Your task to perform on an android device: turn off translation in the chrome app Image 0: 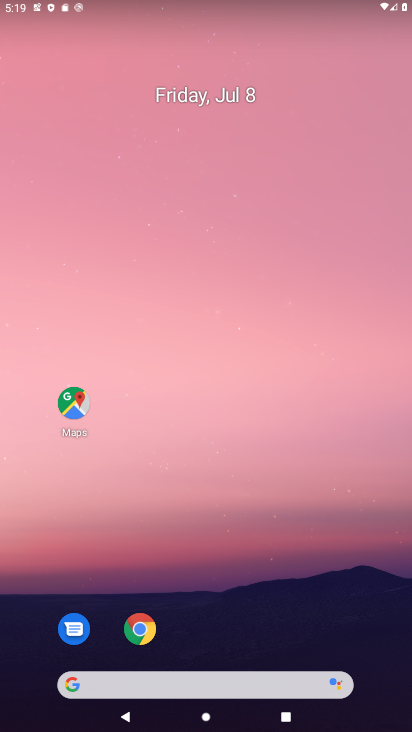
Step 0: click (268, 239)
Your task to perform on an android device: turn off translation in the chrome app Image 1: 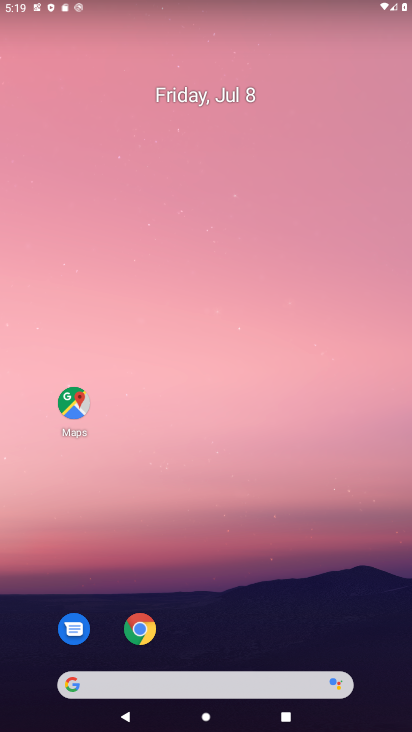
Step 1: drag from (270, 614) to (232, 0)
Your task to perform on an android device: turn off translation in the chrome app Image 2: 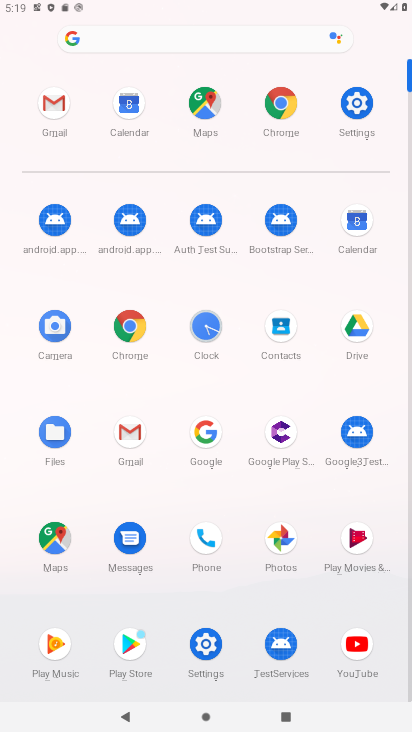
Step 2: click (278, 89)
Your task to perform on an android device: turn off translation in the chrome app Image 3: 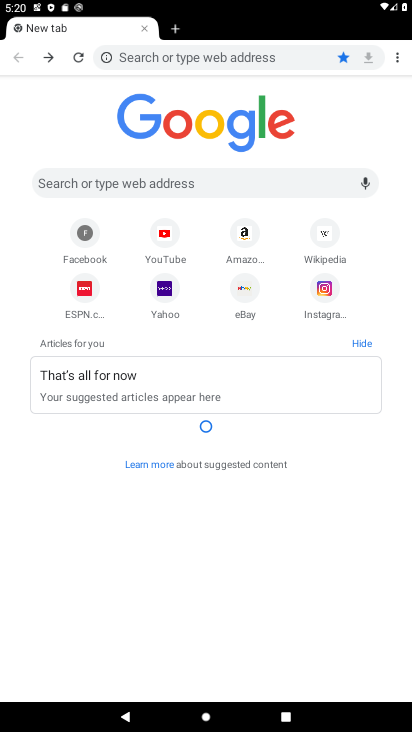
Step 3: drag from (403, 58) to (271, 260)
Your task to perform on an android device: turn off translation in the chrome app Image 4: 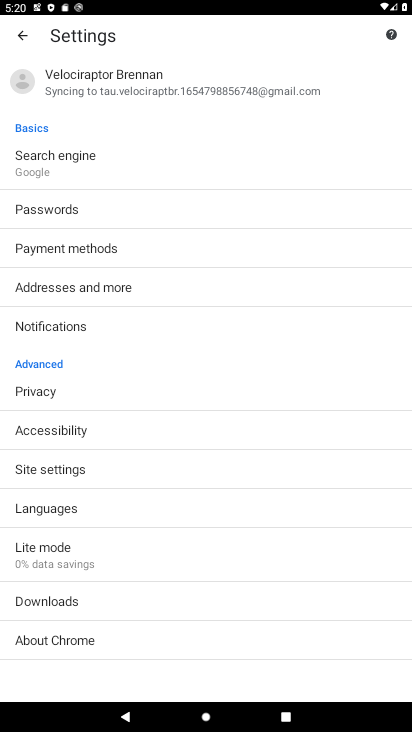
Step 4: click (56, 508)
Your task to perform on an android device: turn off translation in the chrome app Image 5: 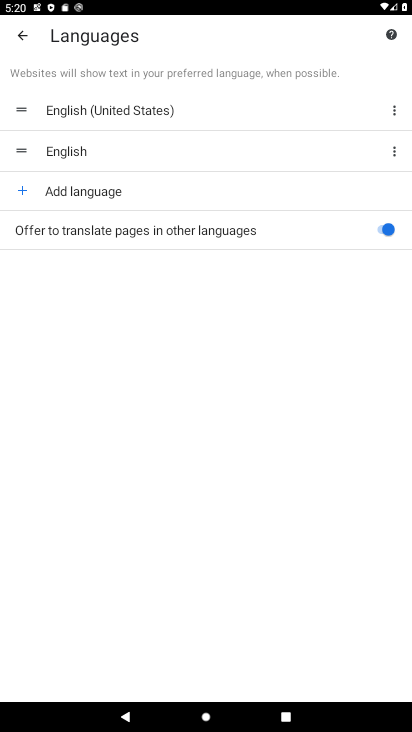
Step 5: click (381, 221)
Your task to perform on an android device: turn off translation in the chrome app Image 6: 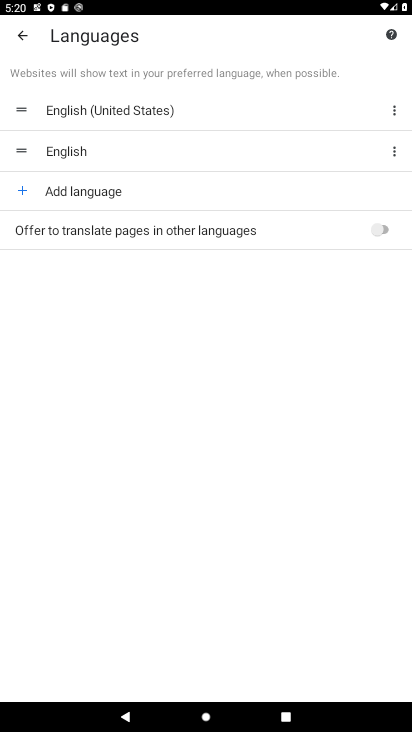
Step 6: task complete